Your task to perform on an android device: turn on notifications settings in the gmail app Image 0: 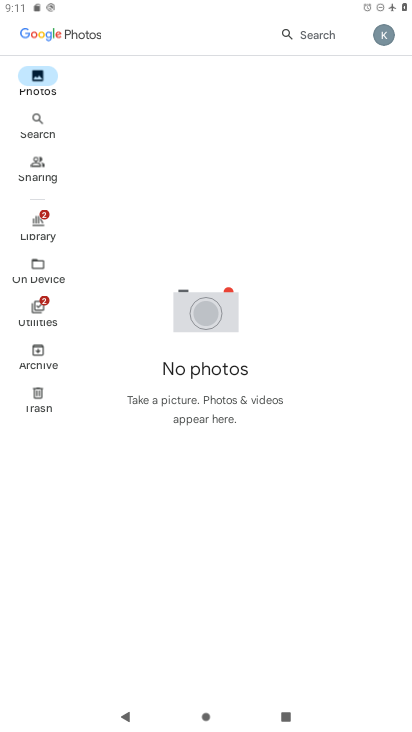
Step 0: press home button
Your task to perform on an android device: turn on notifications settings in the gmail app Image 1: 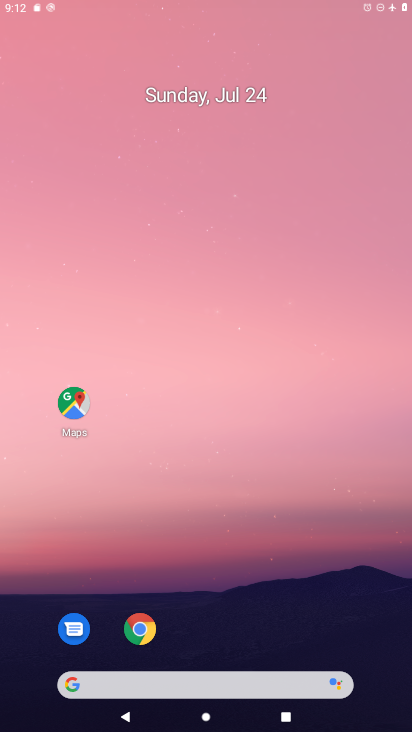
Step 1: drag from (382, 685) to (158, 14)
Your task to perform on an android device: turn on notifications settings in the gmail app Image 2: 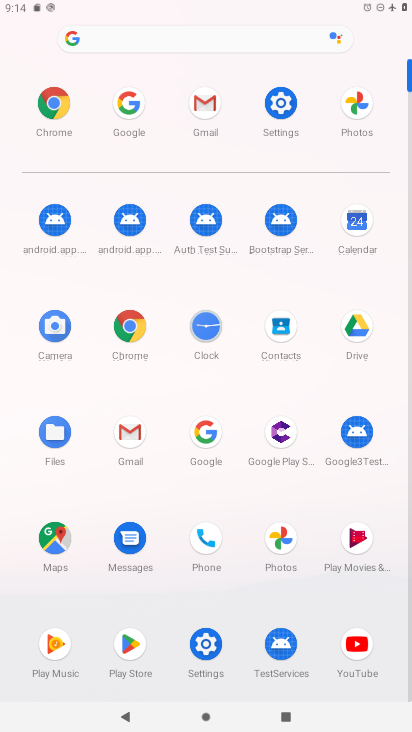
Step 2: click (123, 447)
Your task to perform on an android device: turn on notifications settings in the gmail app Image 3: 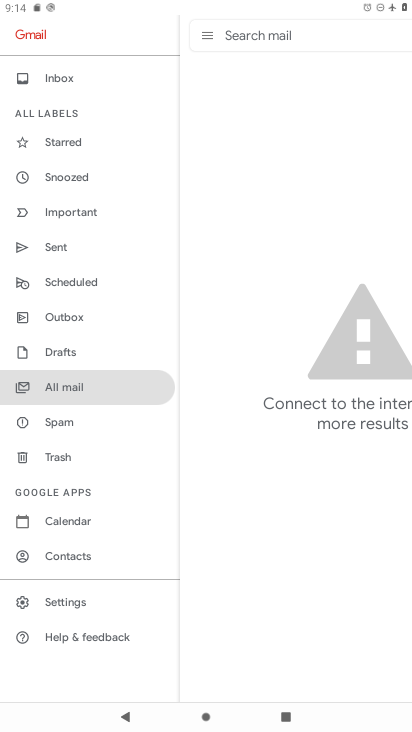
Step 3: click (65, 595)
Your task to perform on an android device: turn on notifications settings in the gmail app Image 4: 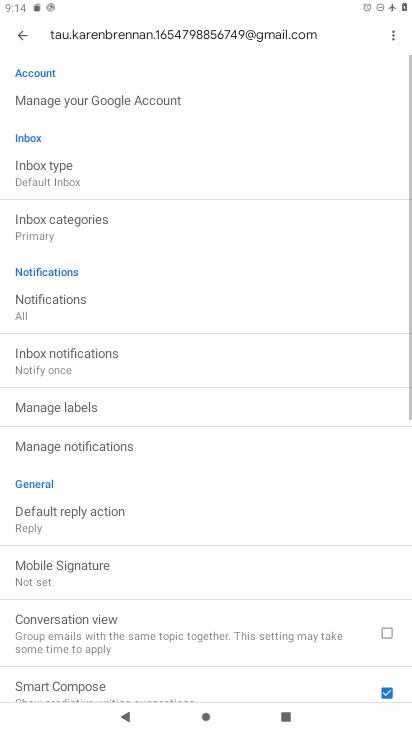
Step 4: click (58, 322)
Your task to perform on an android device: turn on notifications settings in the gmail app Image 5: 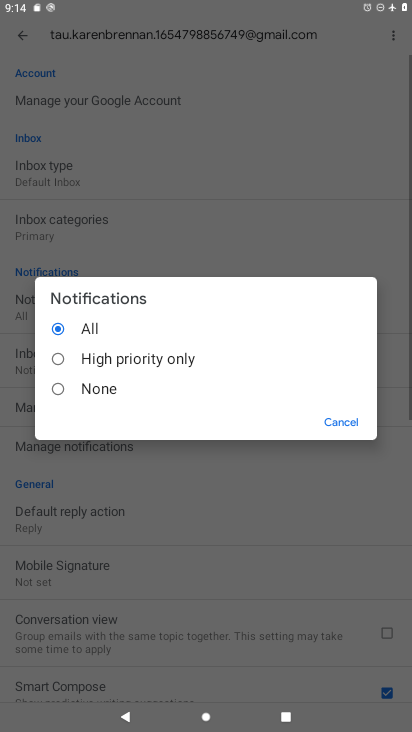
Step 5: click (66, 323)
Your task to perform on an android device: turn on notifications settings in the gmail app Image 6: 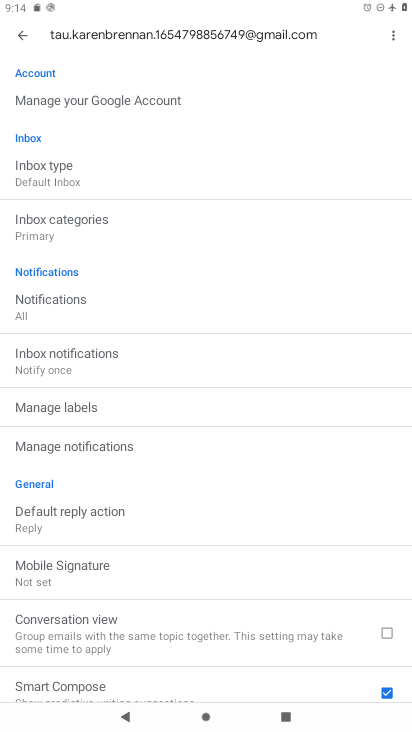
Step 6: task complete